Your task to perform on an android device: search for starred emails in the gmail app Image 0: 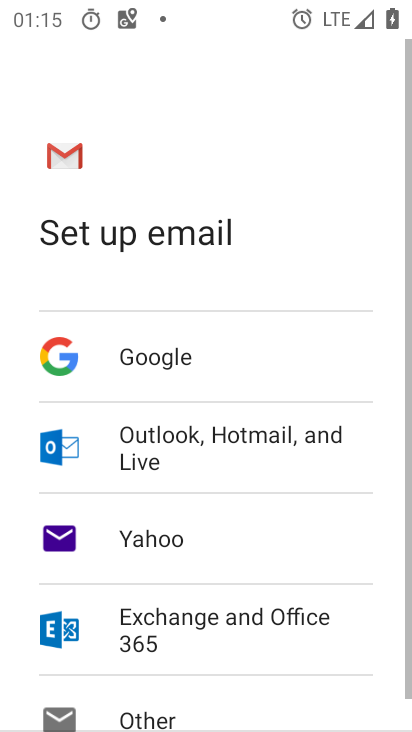
Step 0: press home button
Your task to perform on an android device: search for starred emails in the gmail app Image 1: 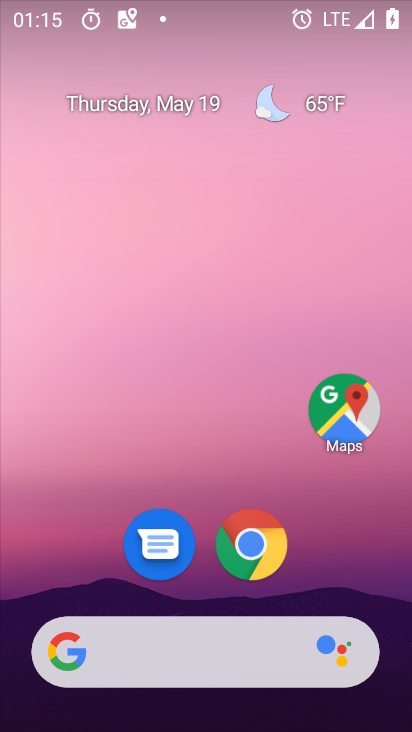
Step 1: drag from (363, 549) to (342, 165)
Your task to perform on an android device: search for starred emails in the gmail app Image 2: 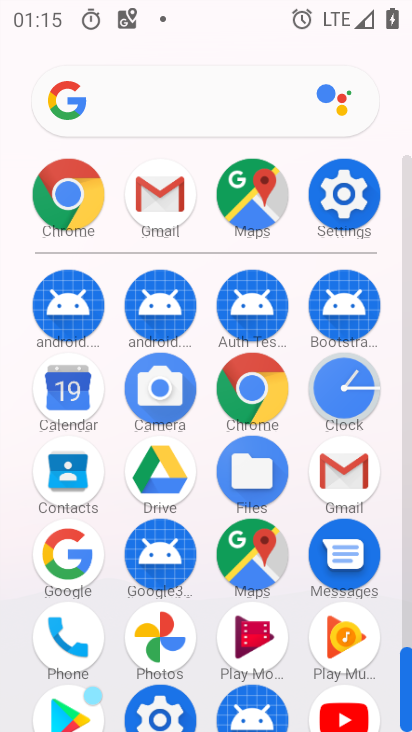
Step 2: click (351, 475)
Your task to perform on an android device: search for starred emails in the gmail app Image 3: 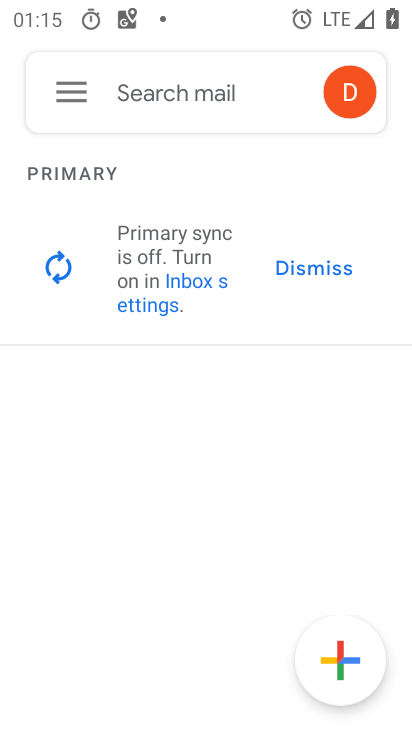
Step 3: click (59, 96)
Your task to perform on an android device: search for starred emails in the gmail app Image 4: 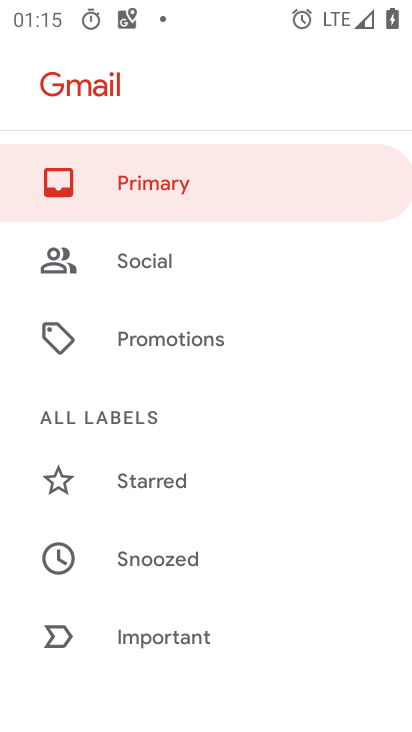
Step 4: drag from (281, 600) to (280, 489)
Your task to perform on an android device: search for starred emails in the gmail app Image 5: 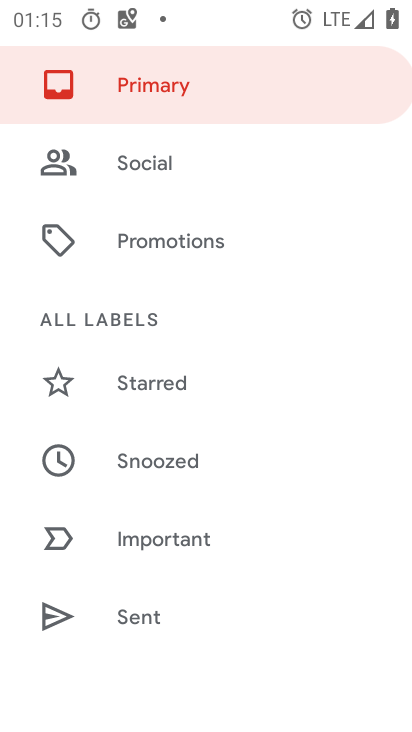
Step 5: drag from (289, 629) to (290, 460)
Your task to perform on an android device: search for starred emails in the gmail app Image 6: 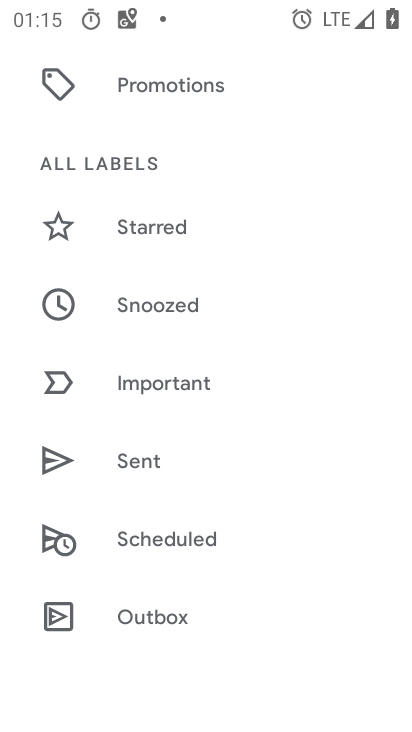
Step 6: drag from (299, 618) to (289, 443)
Your task to perform on an android device: search for starred emails in the gmail app Image 7: 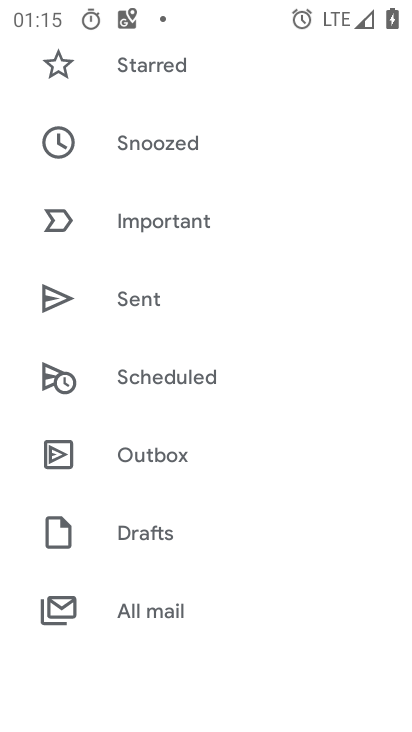
Step 7: drag from (285, 571) to (298, 428)
Your task to perform on an android device: search for starred emails in the gmail app Image 8: 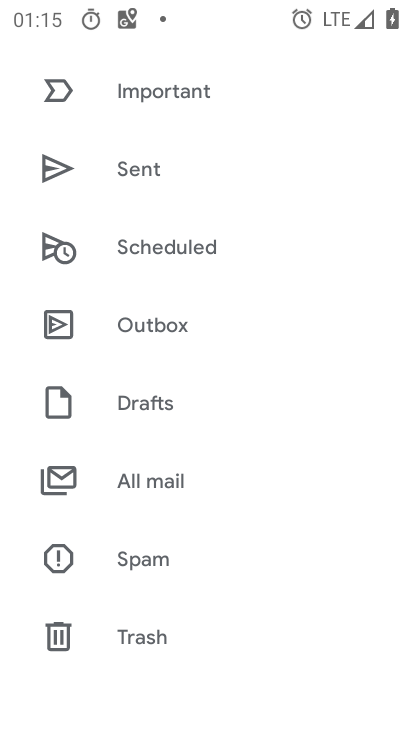
Step 8: drag from (300, 589) to (301, 445)
Your task to perform on an android device: search for starred emails in the gmail app Image 9: 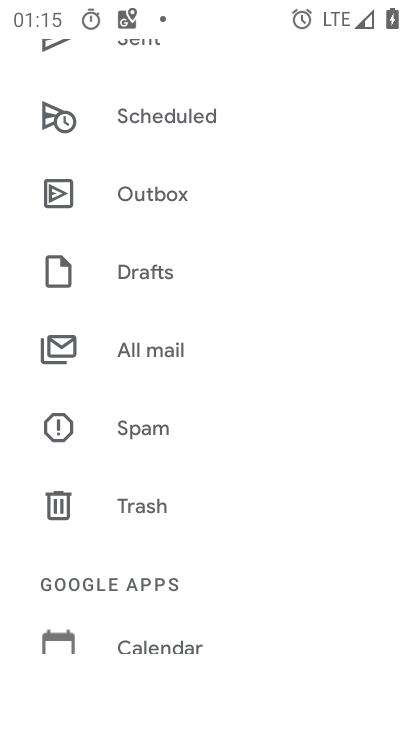
Step 9: drag from (280, 606) to (273, 403)
Your task to perform on an android device: search for starred emails in the gmail app Image 10: 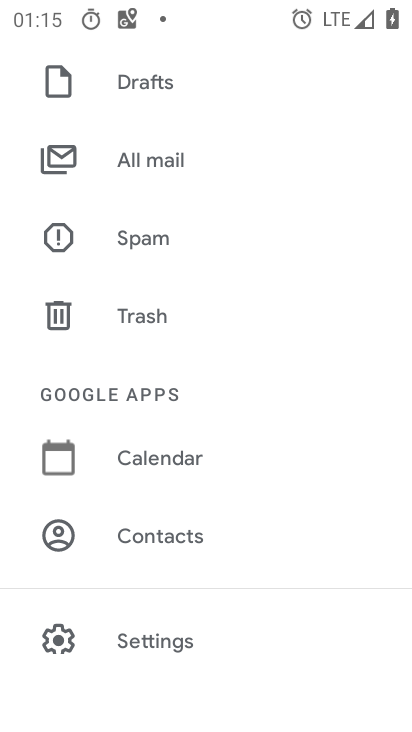
Step 10: drag from (282, 561) to (286, 438)
Your task to perform on an android device: search for starred emails in the gmail app Image 11: 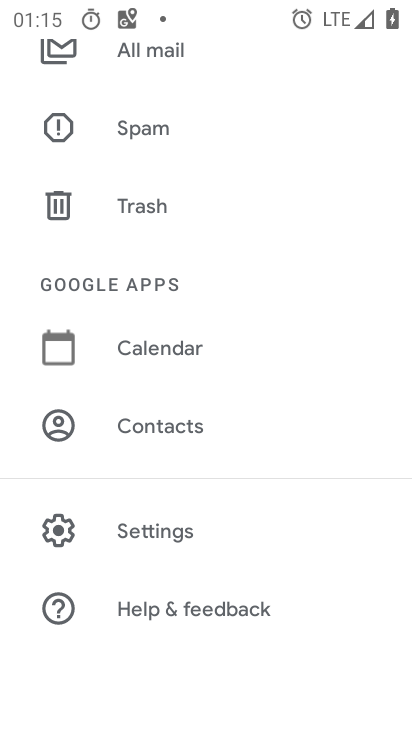
Step 11: drag from (279, 352) to (282, 489)
Your task to perform on an android device: search for starred emails in the gmail app Image 12: 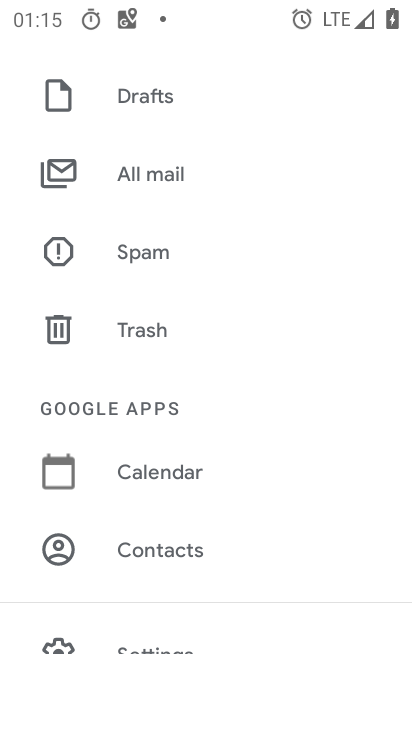
Step 12: drag from (283, 275) to (273, 439)
Your task to perform on an android device: search for starred emails in the gmail app Image 13: 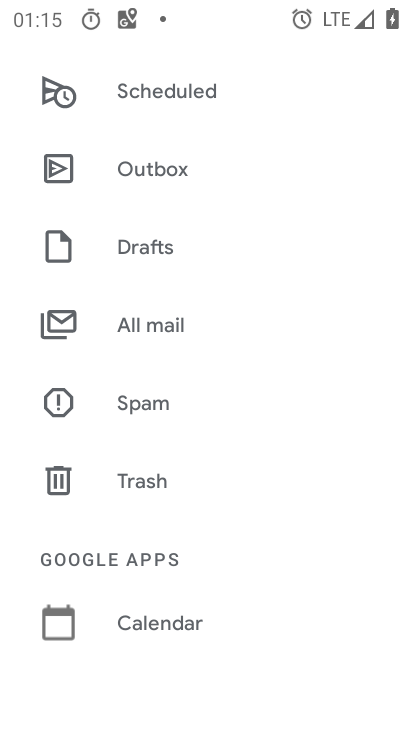
Step 13: drag from (262, 222) to (261, 431)
Your task to perform on an android device: search for starred emails in the gmail app Image 14: 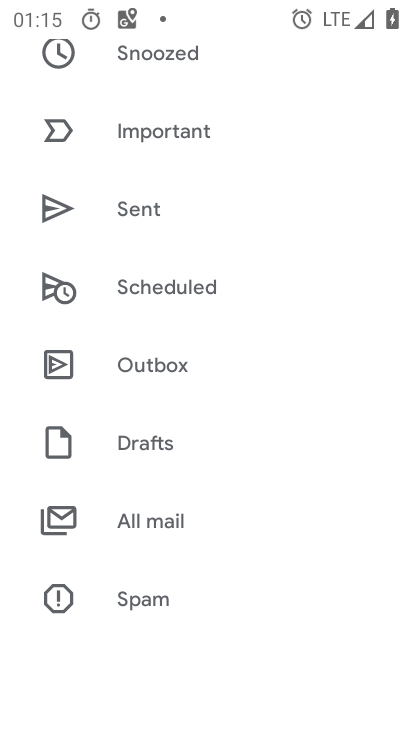
Step 14: drag from (280, 227) to (264, 381)
Your task to perform on an android device: search for starred emails in the gmail app Image 15: 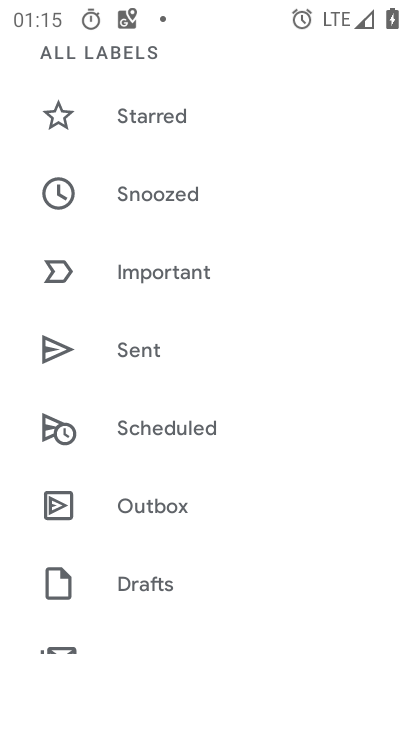
Step 15: drag from (261, 200) to (263, 359)
Your task to perform on an android device: search for starred emails in the gmail app Image 16: 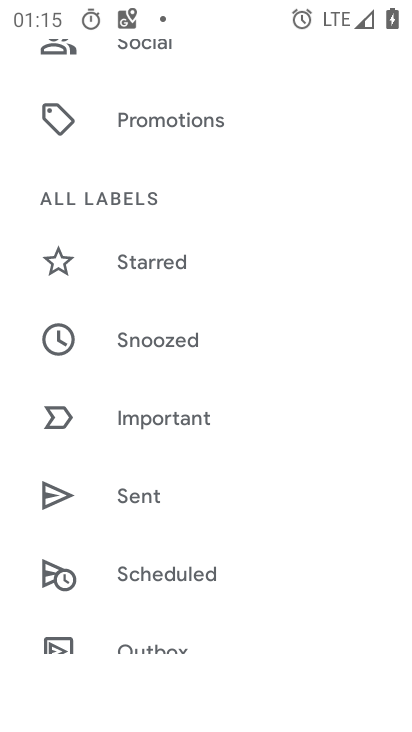
Step 16: drag from (263, 218) to (256, 372)
Your task to perform on an android device: search for starred emails in the gmail app Image 17: 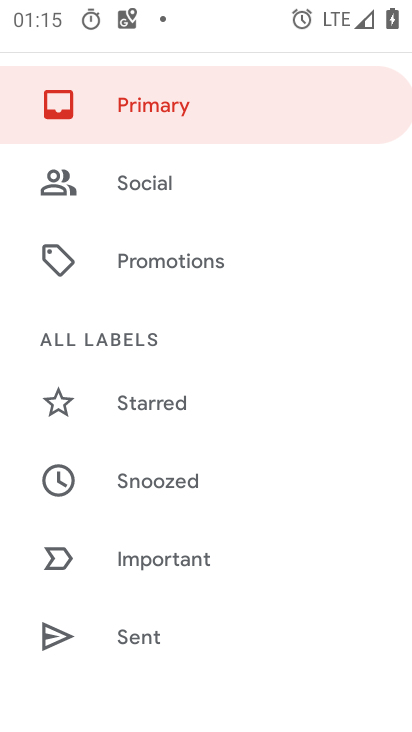
Step 17: click (186, 419)
Your task to perform on an android device: search for starred emails in the gmail app Image 18: 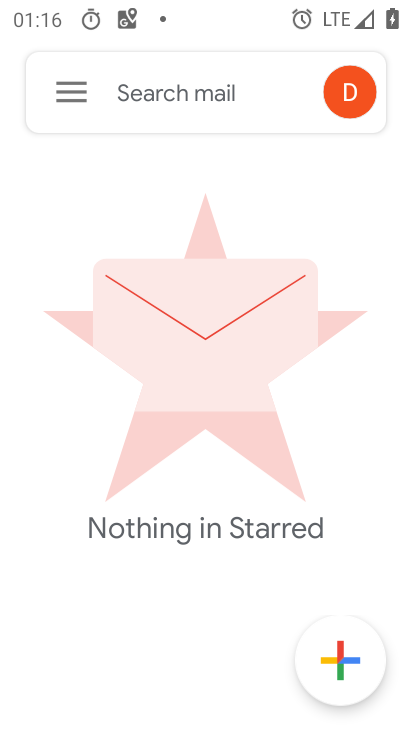
Step 18: click (75, 75)
Your task to perform on an android device: search for starred emails in the gmail app Image 19: 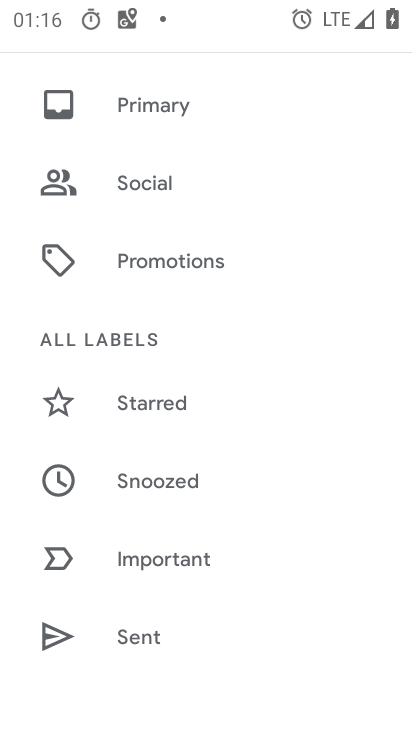
Step 19: drag from (283, 525) to (291, 352)
Your task to perform on an android device: search for starred emails in the gmail app Image 20: 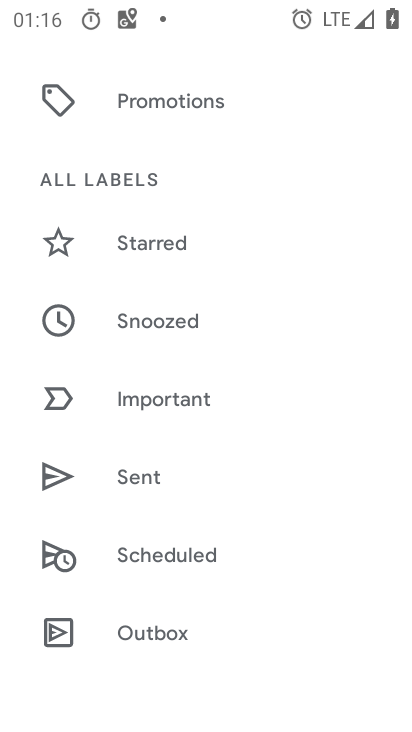
Step 20: drag from (283, 601) to (287, 362)
Your task to perform on an android device: search for starred emails in the gmail app Image 21: 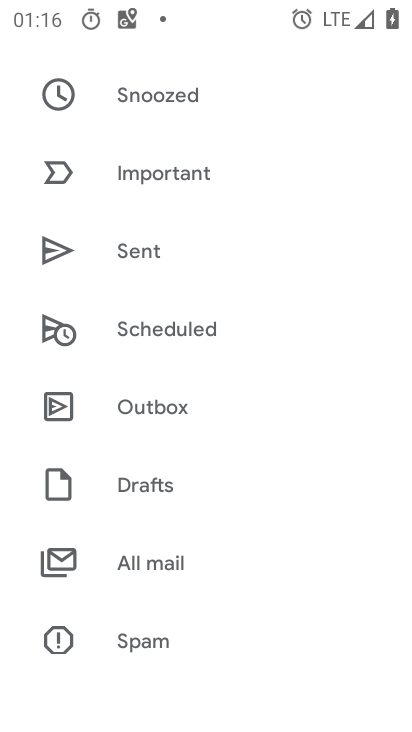
Step 21: drag from (312, 576) to (302, 350)
Your task to perform on an android device: search for starred emails in the gmail app Image 22: 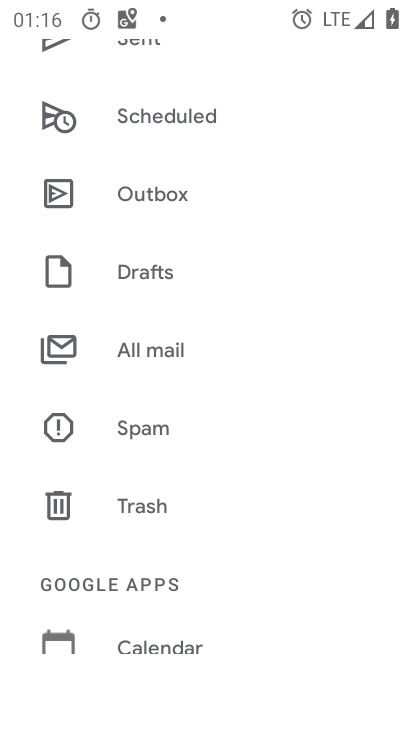
Step 22: drag from (297, 551) to (298, 355)
Your task to perform on an android device: search for starred emails in the gmail app Image 23: 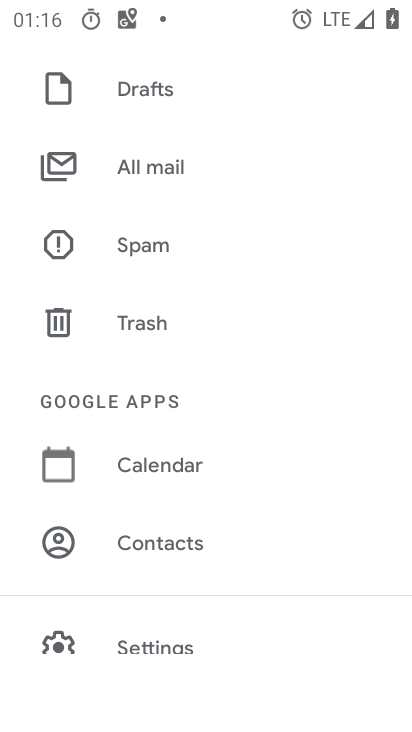
Step 23: drag from (293, 574) to (302, 315)
Your task to perform on an android device: search for starred emails in the gmail app Image 24: 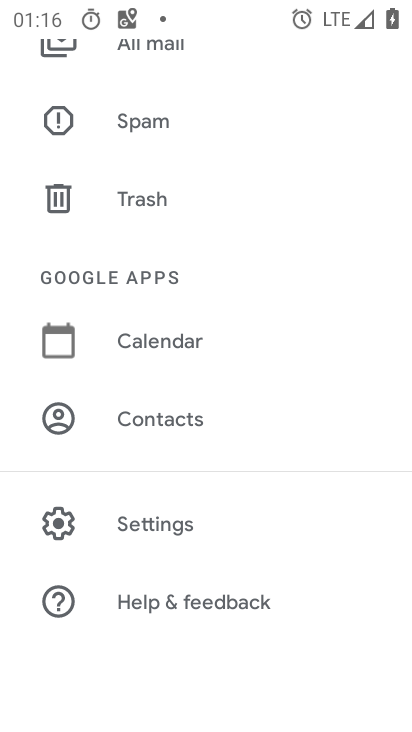
Step 24: drag from (307, 330) to (305, 476)
Your task to perform on an android device: search for starred emails in the gmail app Image 25: 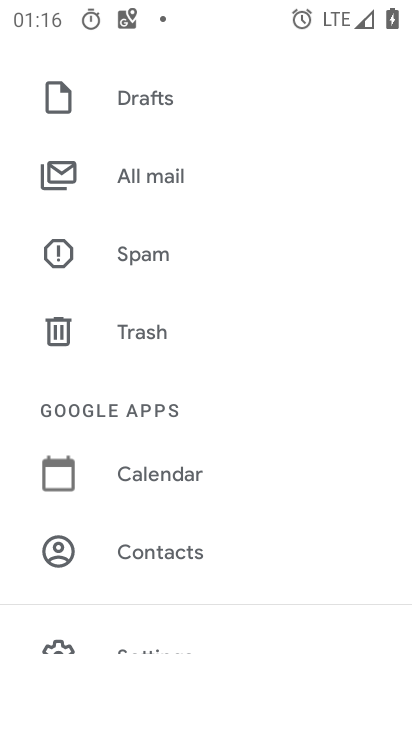
Step 25: drag from (293, 233) to (295, 421)
Your task to perform on an android device: search for starred emails in the gmail app Image 26: 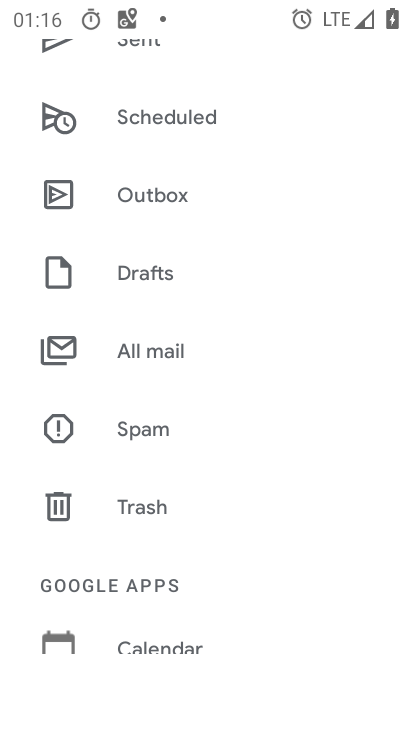
Step 26: drag from (286, 233) to (283, 443)
Your task to perform on an android device: search for starred emails in the gmail app Image 27: 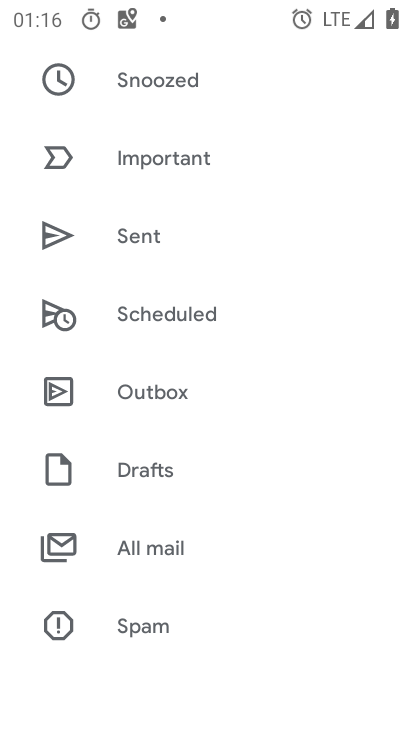
Step 27: drag from (300, 252) to (291, 489)
Your task to perform on an android device: search for starred emails in the gmail app Image 28: 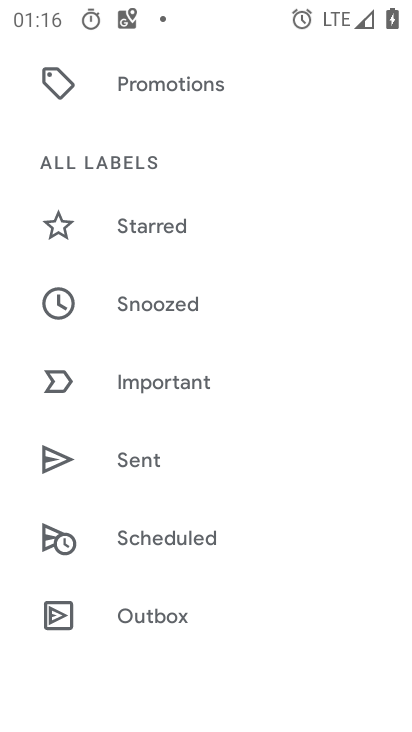
Step 28: drag from (305, 208) to (297, 450)
Your task to perform on an android device: search for starred emails in the gmail app Image 29: 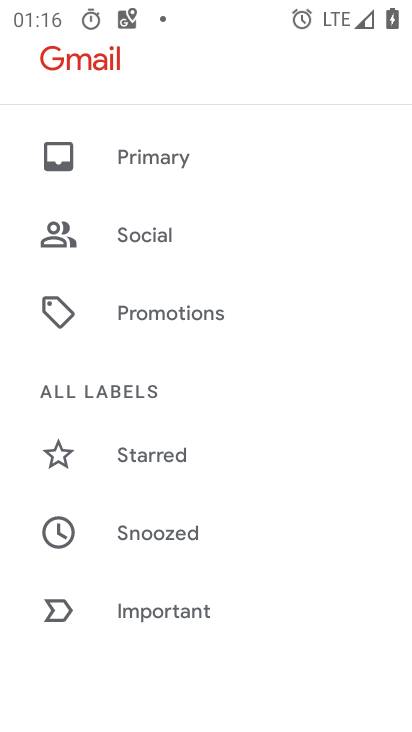
Step 29: drag from (284, 177) to (277, 418)
Your task to perform on an android device: search for starred emails in the gmail app Image 30: 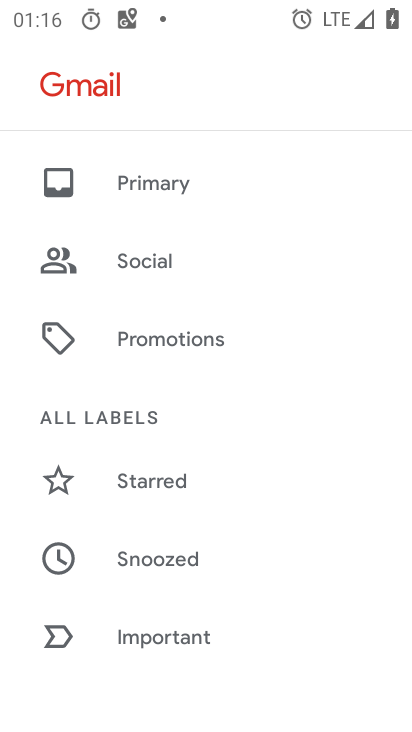
Step 30: click (157, 492)
Your task to perform on an android device: search for starred emails in the gmail app Image 31: 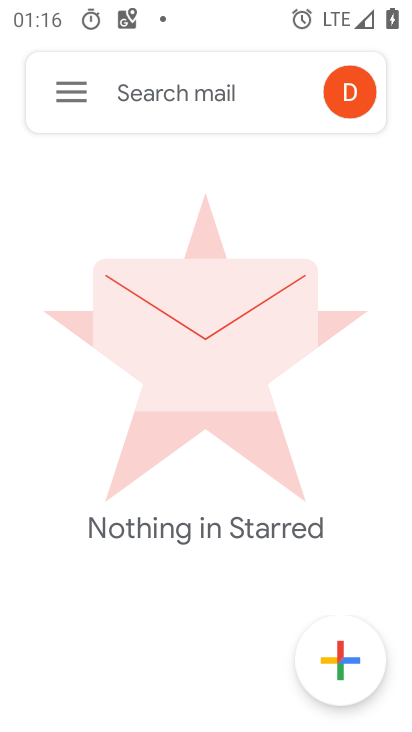
Step 31: task complete